Your task to perform on an android device: toggle notification dots Image 0: 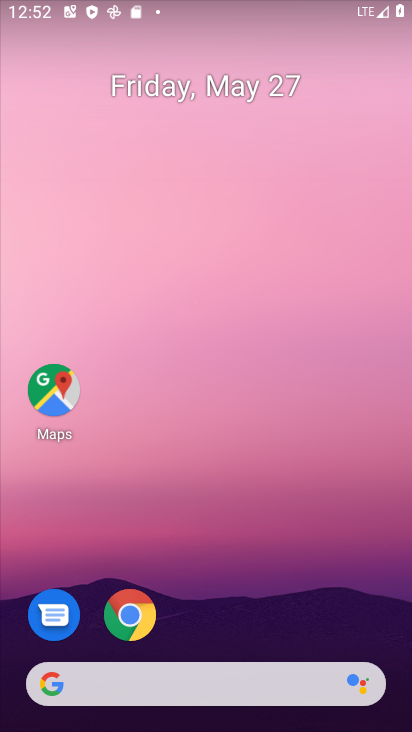
Step 0: drag from (137, 590) to (135, 17)
Your task to perform on an android device: toggle notification dots Image 1: 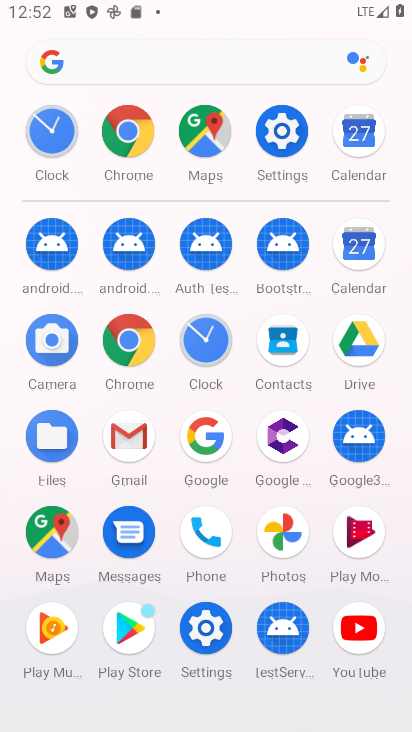
Step 1: click (278, 135)
Your task to perform on an android device: toggle notification dots Image 2: 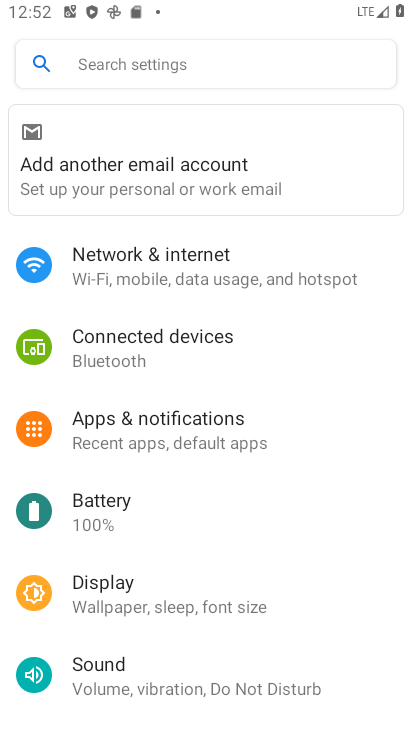
Step 2: click (181, 431)
Your task to perform on an android device: toggle notification dots Image 3: 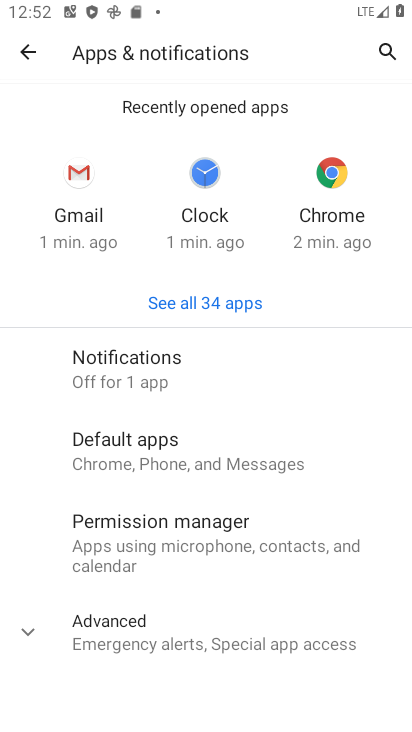
Step 3: drag from (238, 616) to (301, 376)
Your task to perform on an android device: toggle notification dots Image 4: 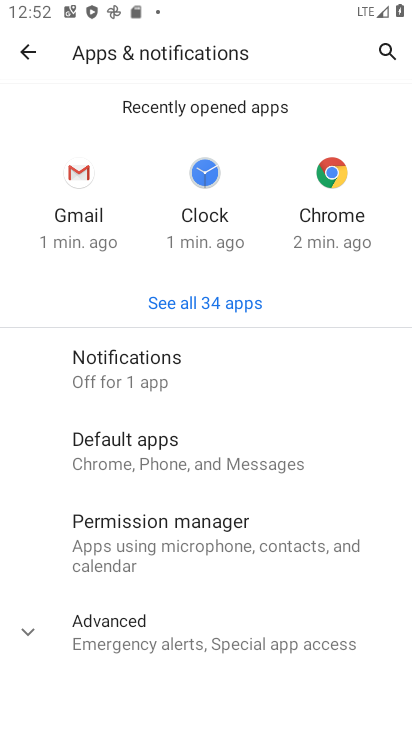
Step 4: click (166, 373)
Your task to perform on an android device: toggle notification dots Image 5: 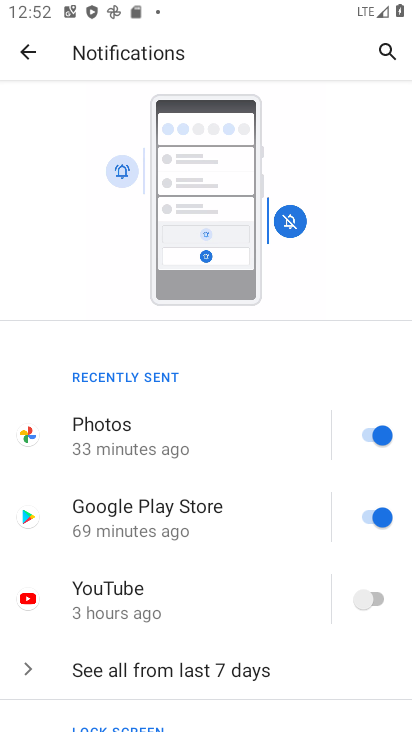
Step 5: drag from (211, 643) to (244, 262)
Your task to perform on an android device: toggle notification dots Image 6: 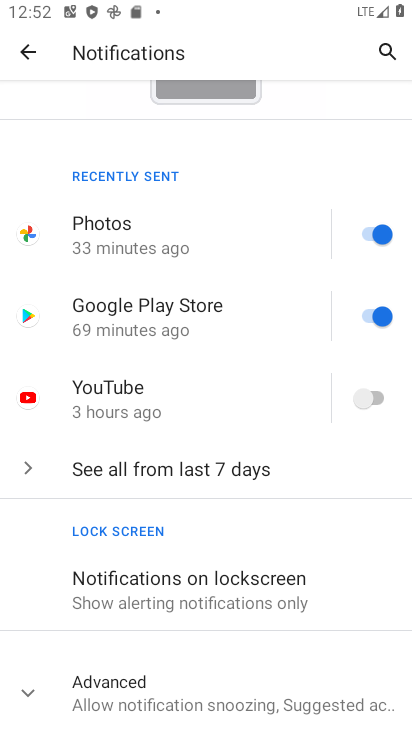
Step 6: click (164, 703)
Your task to perform on an android device: toggle notification dots Image 7: 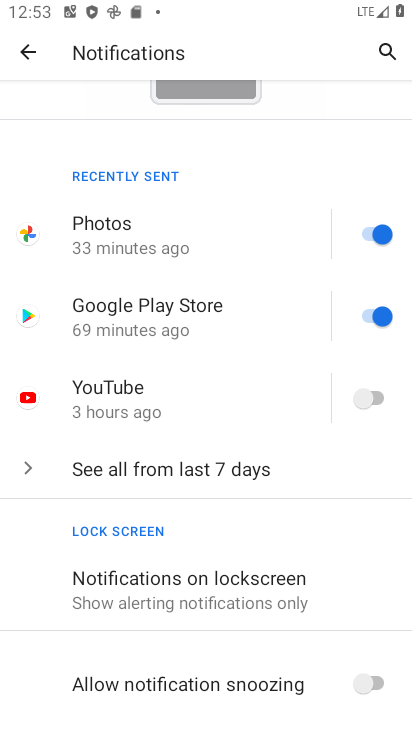
Step 7: drag from (254, 700) to (221, 246)
Your task to perform on an android device: toggle notification dots Image 8: 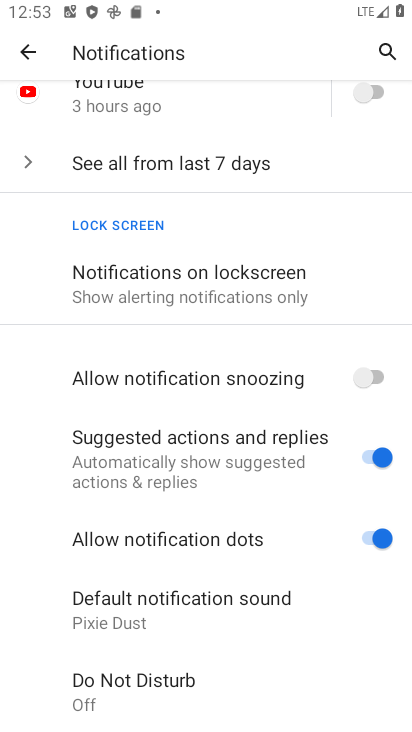
Step 8: click (364, 536)
Your task to perform on an android device: toggle notification dots Image 9: 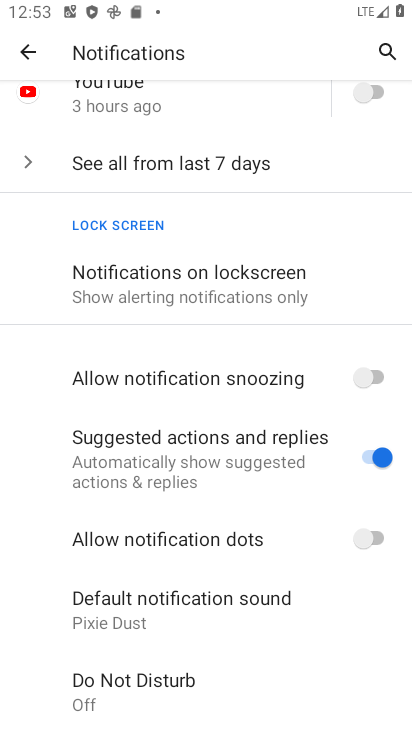
Step 9: task complete